Your task to perform on an android device: Open calendar and show me the fourth week of next month Image 0: 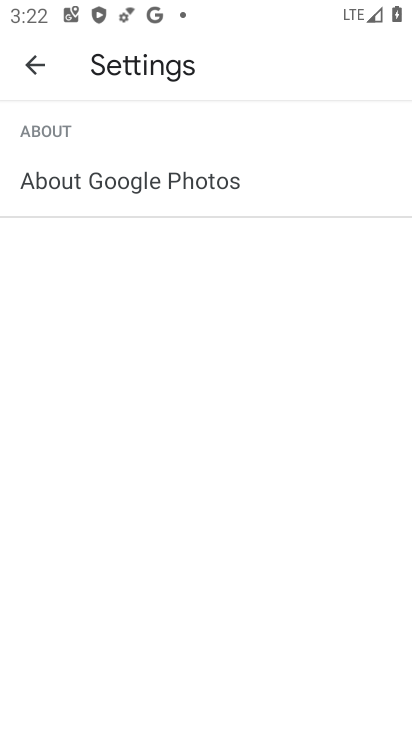
Step 0: press home button
Your task to perform on an android device: Open calendar and show me the fourth week of next month Image 1: 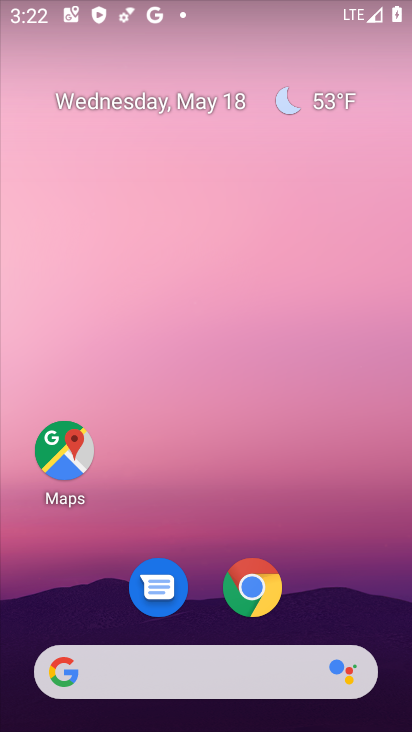
Step 1: drag from (181, 683) to (202, 254)
Your task to perform on an android device: Open calendar and show me the fourth week of next month Image 2: 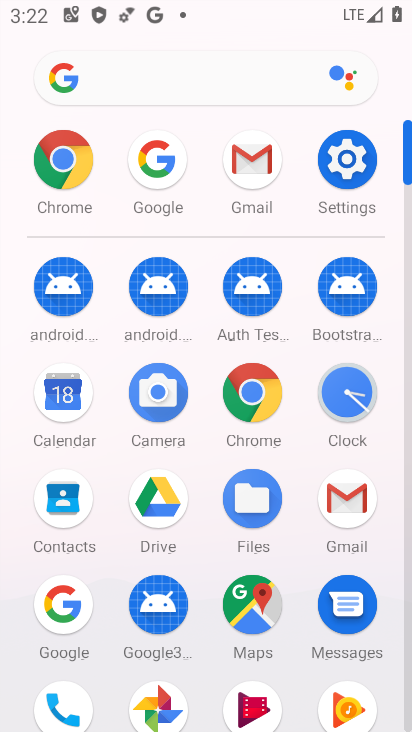
Step 2: click (48, 409)
Your task to perform on an android device: Open calendar and show me the fourth week of next month Image 3: 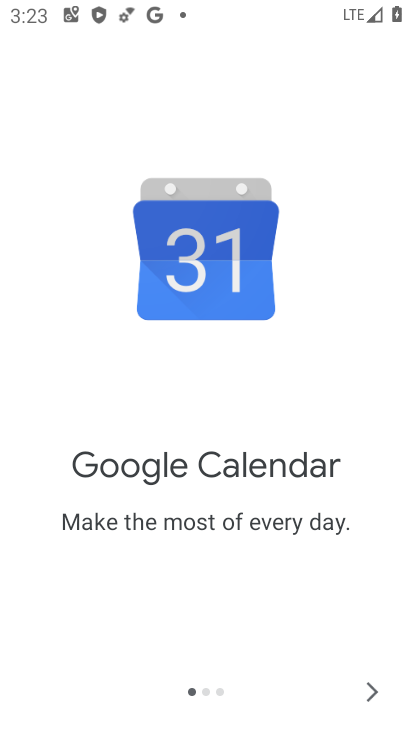
Step 3: click (352, 692)
Your task to perform on an android device: Open calendar and show me the fourth week of next month Image 4: 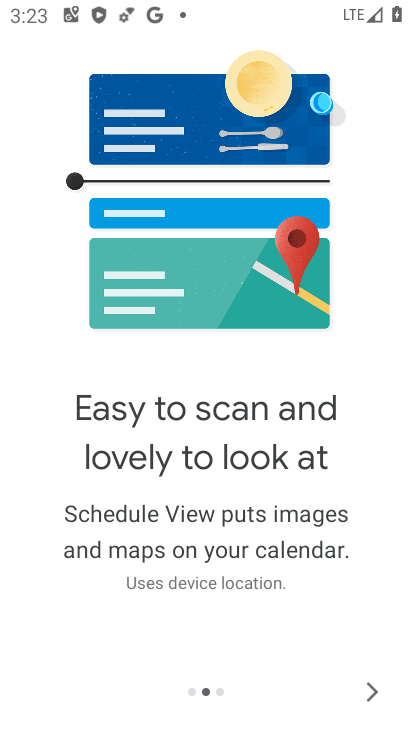
Step 4: click (352, 692)
Your task to perform on an android device: Open calendar and show me the fourth week of next month Image 5: 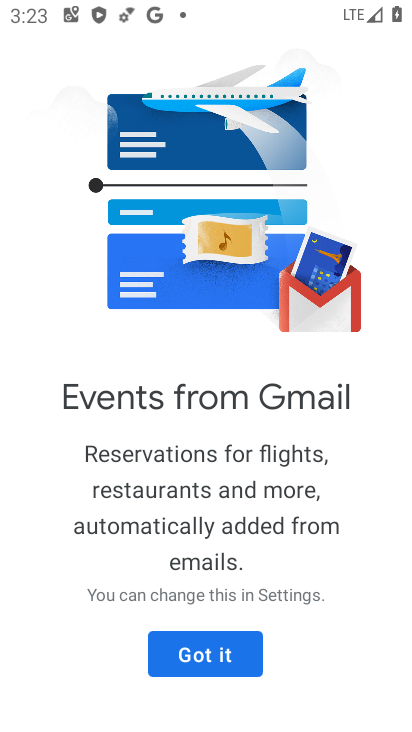
Step 5: click (225, 662)
Your task to perform on an android device: Open calendar and show me the fourth week of next month Image 6: 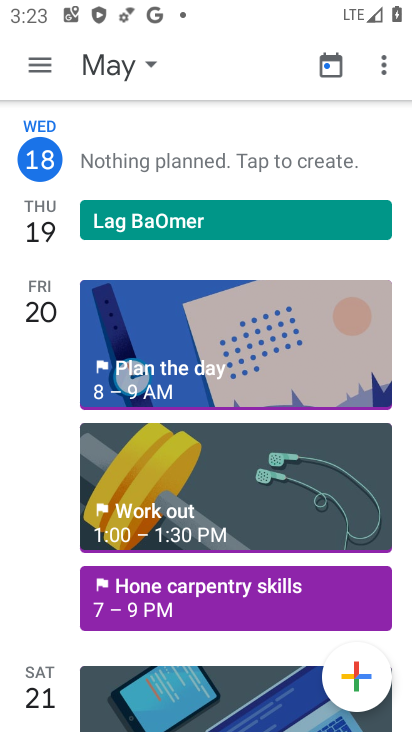
Step 6: click (139, 65)
Your task to perform on an android device: Open calendar and show me the fourth week of next month Image 7: 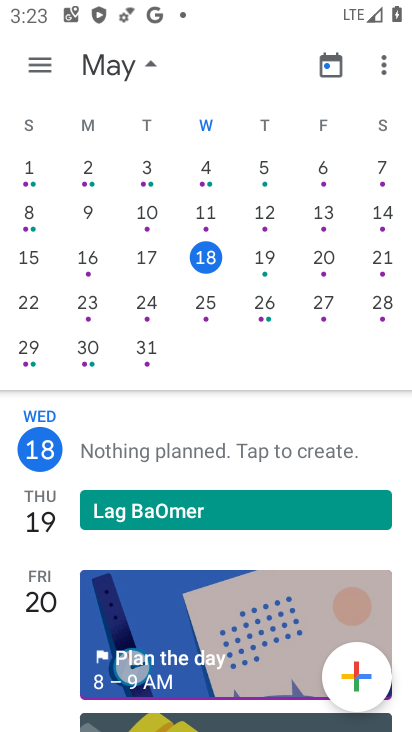
Step 7: drag from (351, 255) to (28, 165)
Your task to perform on an android device: Open calendar and show me the fourth week of next month Image 8: 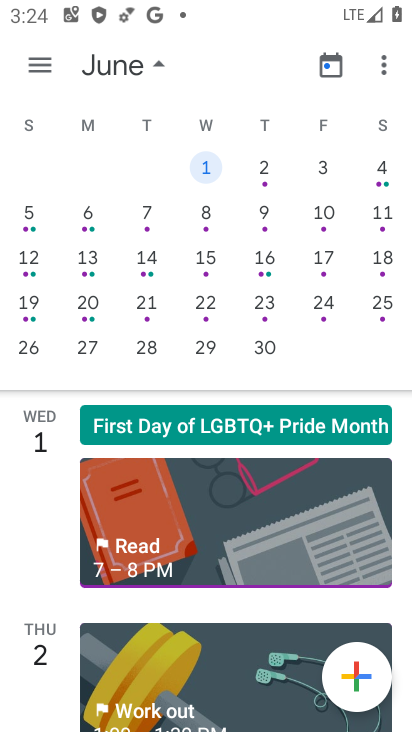
Step 8: click (31, 354)
Your task to perform on an android device: Open calendar and show me the fourth week of next month Image 9: 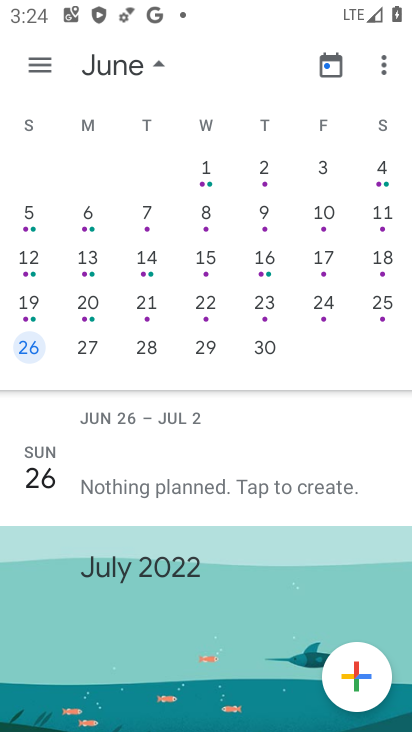
Step 9: task complete